Your task to perform on an android device: Go to Amazon Image 0: 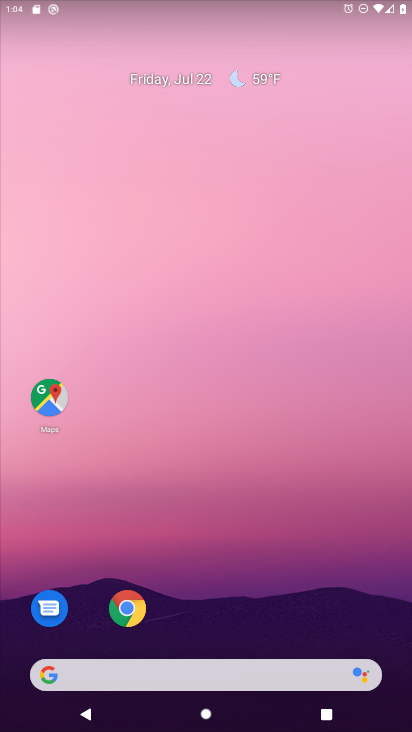
Step 0: drag from (358, 608) to (137, 149)
Your task to perform on an android device: Go to Amazon Image 1: 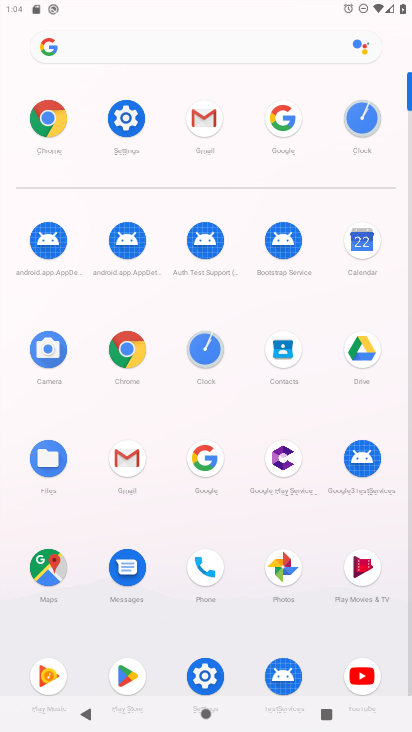
Step 1: click (204, 461)
Your task to perform on an android device: Go to Amazon Image 2: 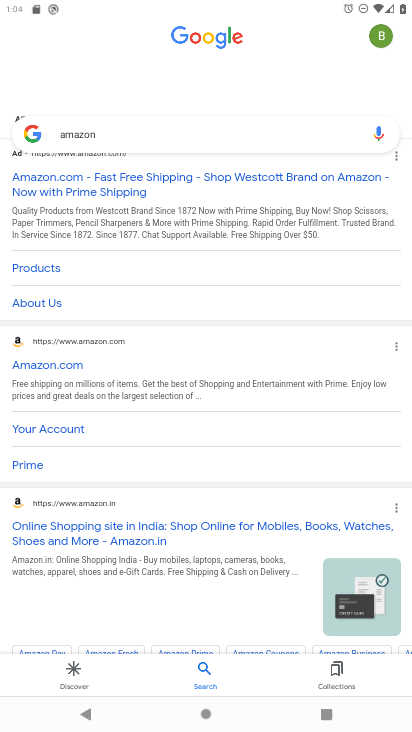
Step 2: press back button
Your task to perform on an android device: Go to Amazon Image 3: 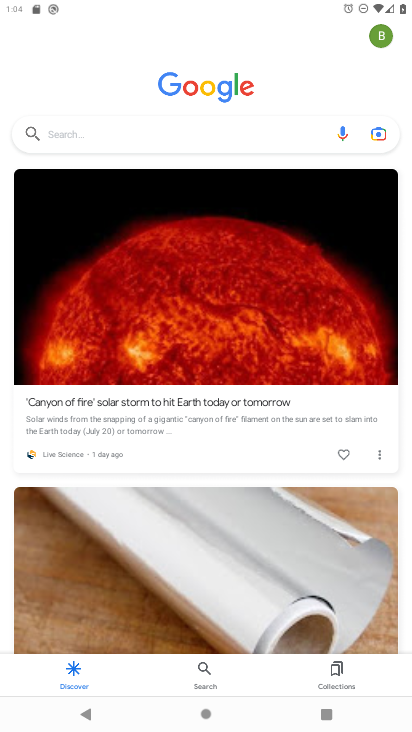
Step 3: click (101, 127)
Your task to perform on an android device: Go to Amazon Image 4: 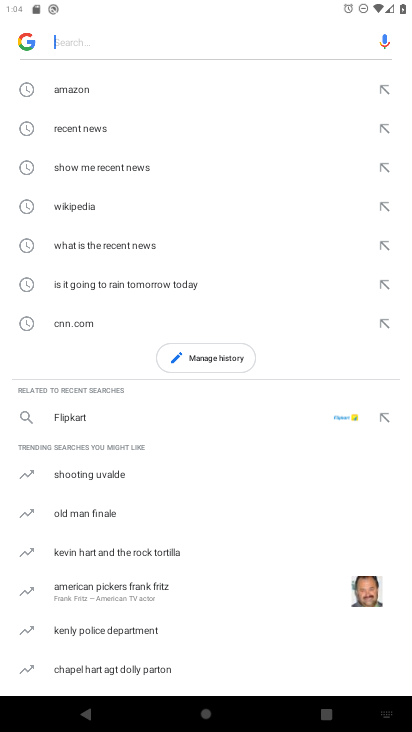
Step 4: type "Amazon"
Your task to perform on an android device: Go to Amazon Image 5: 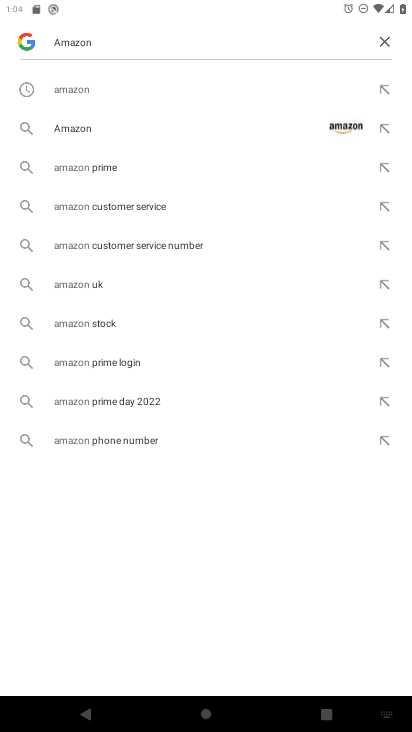
Step 5: click (77, 129)
Your task to perform on an android device: Go to Amazon Image 6: 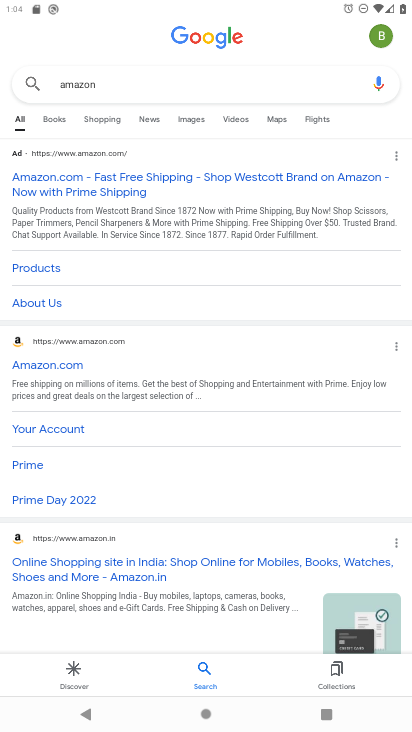
Step 6: task complete